Your task to perform on an android device: Search for vegetarian restaurants on Maps Image 0: 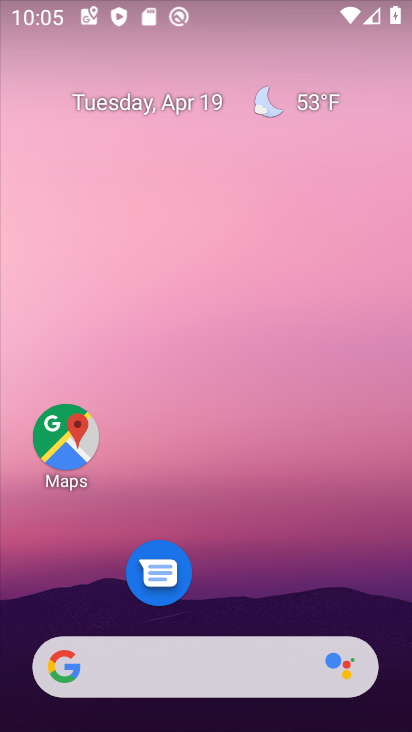
Step 0: click (70, 437)
Your task to perform on an android device: Search for vegetarian restaurants on Maps Image 1: 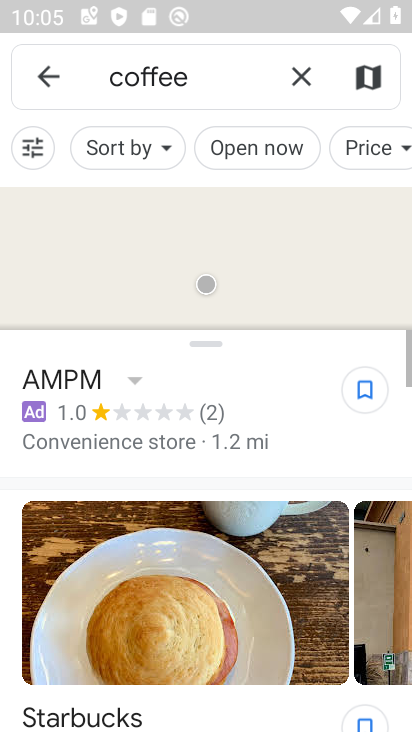
Step 1: click (298, 74)
Your task to perform on an android device: Search for vegetarian restaurants on Maps Image 2: 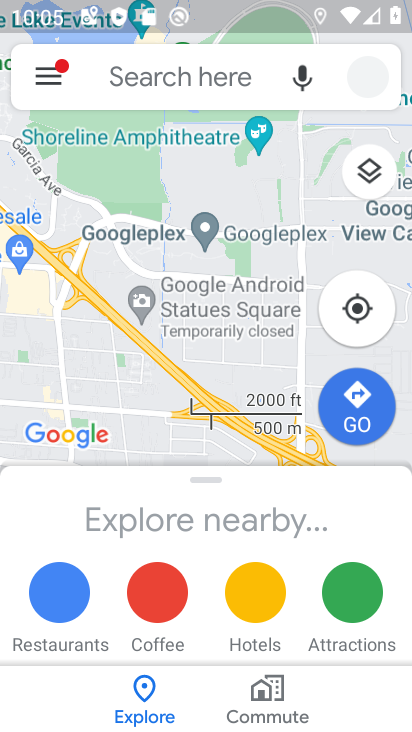
Step 2: click (237, 77)
Your task to perform on an android device: Search for vegetarian restaurants on Maps Image 3: 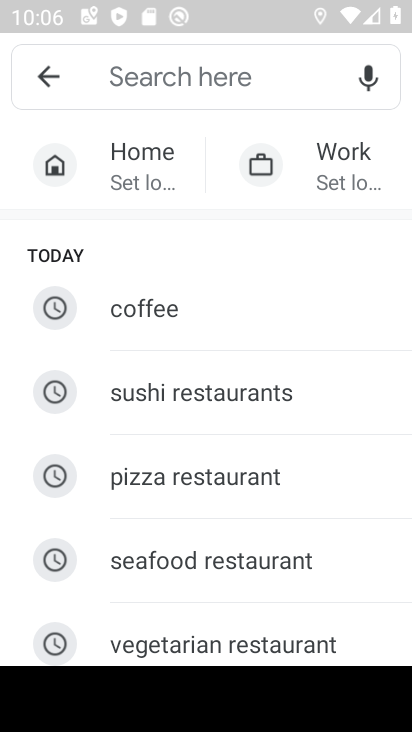
Step 3: type "vegetarian restaurants"
Your task to perform on an android device: Search for vegetarian restaurants on Maps Image 4: 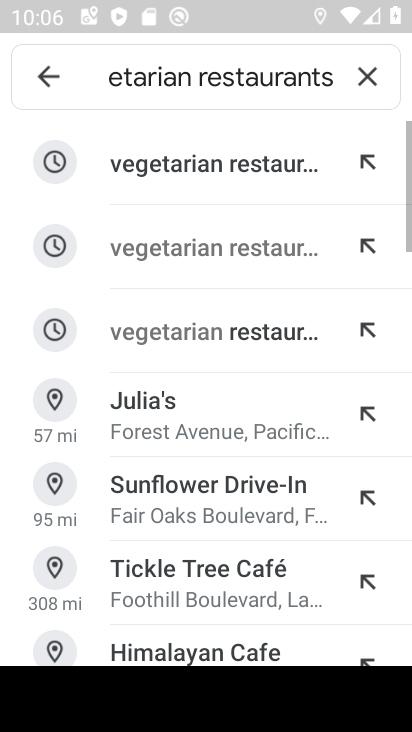
Step 4: click (248, 150)
Your task to perform on an android device: Search for vegetarian restaurants on Maps Image 5: 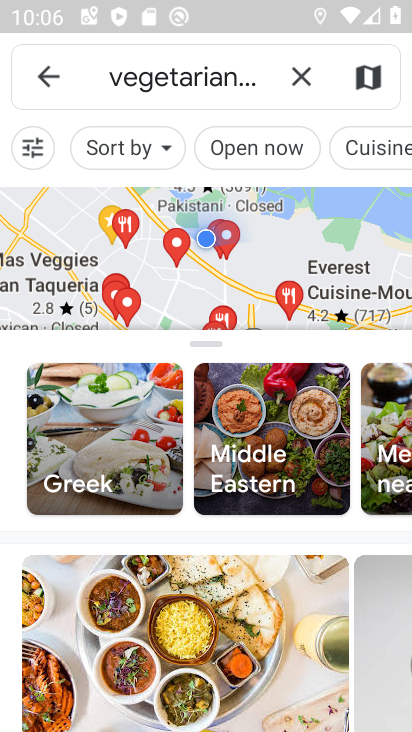
Step 5: task complete